Your task to perform on an android device: Go to CNN.com Image 0: 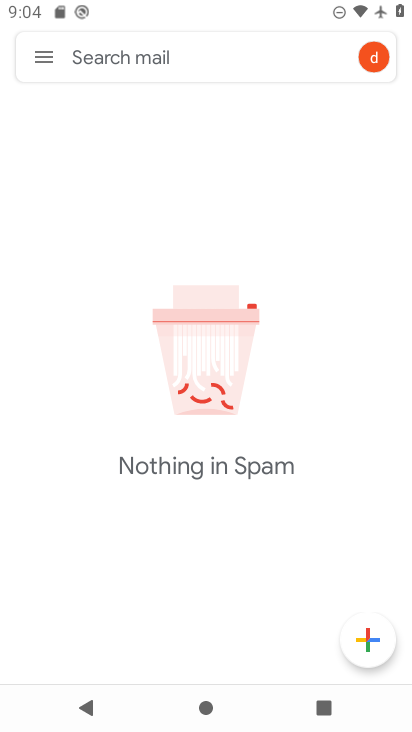
Step 0: press home button
Your task to perform on an android device: Go to CNN.com Image 1: 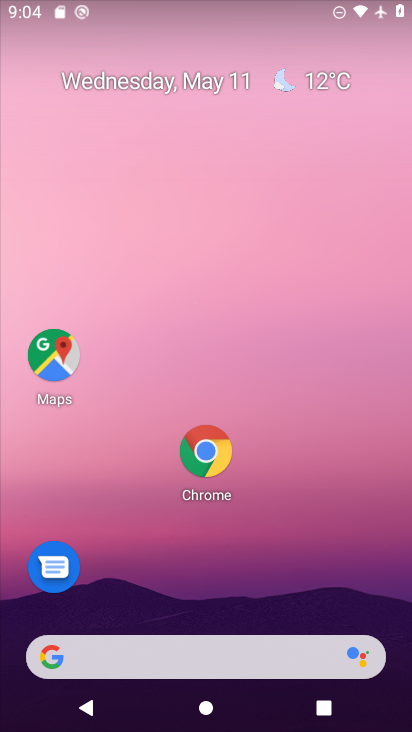
Step 1: drag from (191, 674) to (289, 176)
Your task to perform on an android device: Go to CNN.com Image 2: 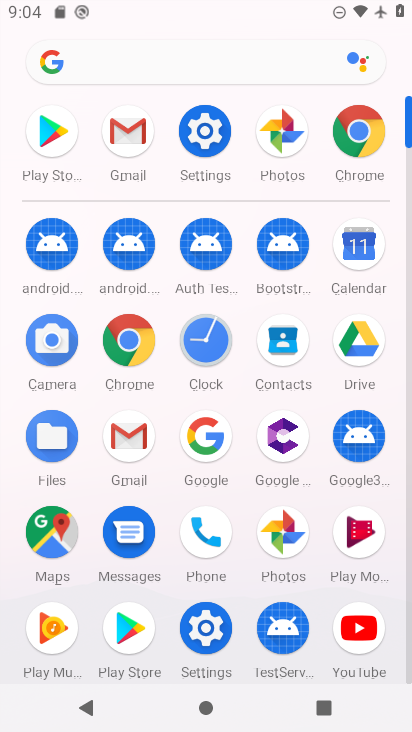
Step 2: click (355, 139)
Your task to perform on an android device: Go to CNN.com Image 3: 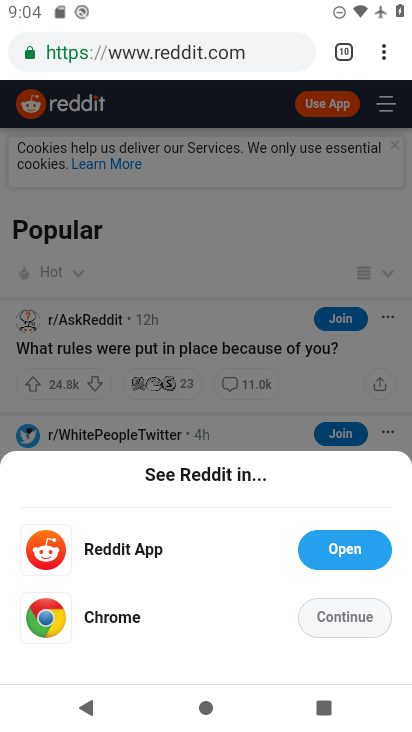
Step 3: drag from (384, 56) to (283, 104)
Your task to perform on an android device: Go to CNN.com Image 4: 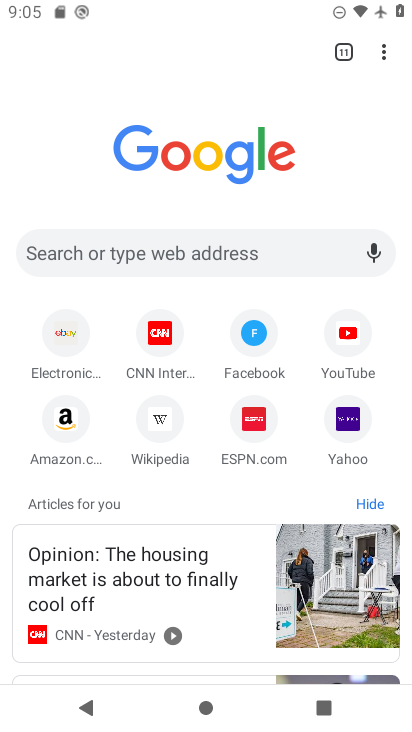
Step 4: click (113, 253)
Your task to perform on an android device: Go to CNN.com Image 5: 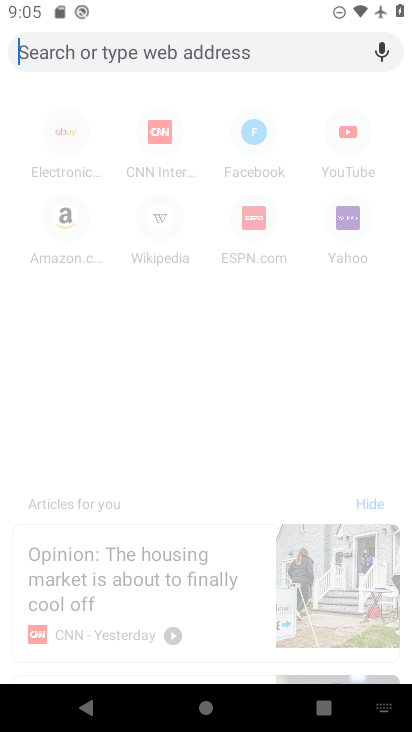
Step 5: type "cnn.com"
Your task to perform on an android device: Go to CNN.com Image 6: 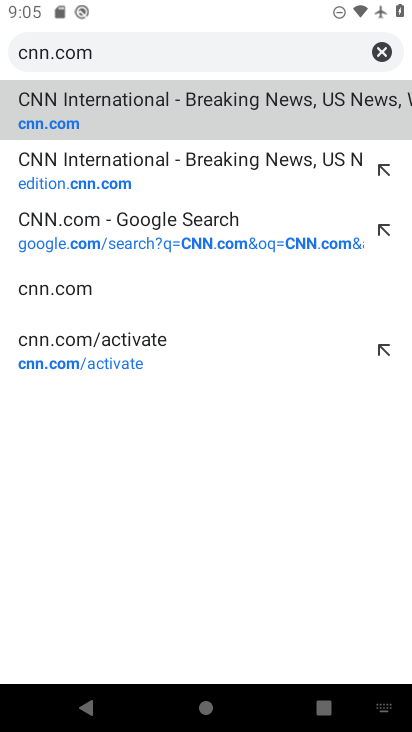
Step 6: click (137, 107)
Your task to perform on an android device: Go to CNN.com Image 7: 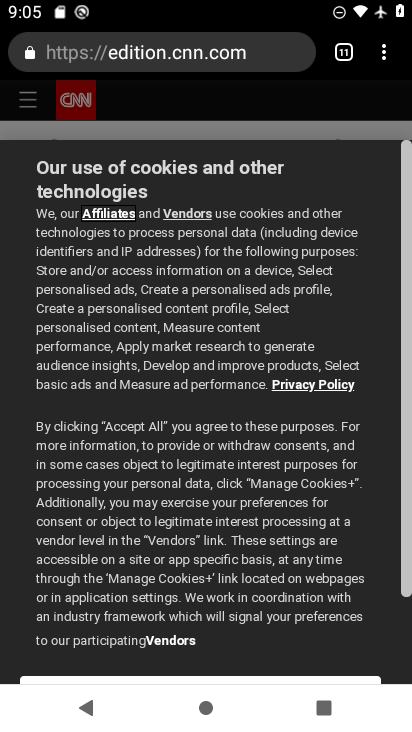
Step 7: task complete